Your task to perform on an android device: Open battery settings Image 0: 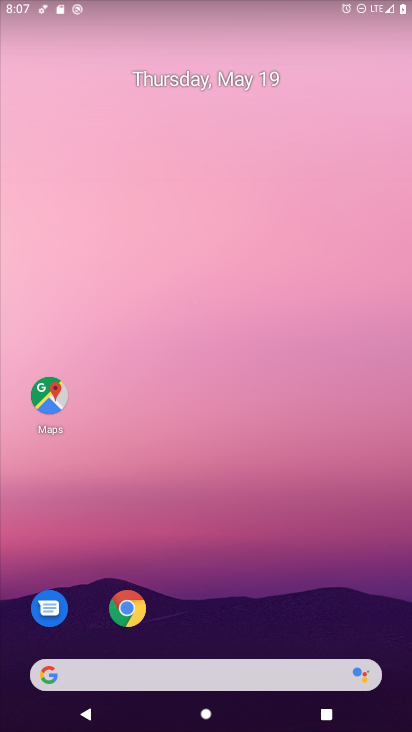
Step 0: drag from (398, 696) to (368, 200)
Your task to perform on an android device: Open battery settings Image 1: 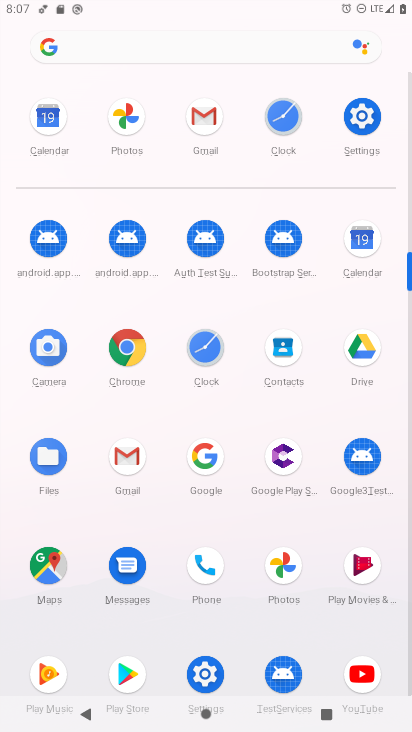
Step 1: click (368, 117)
Your task to perform on an android device: Open battery settings Image 2: 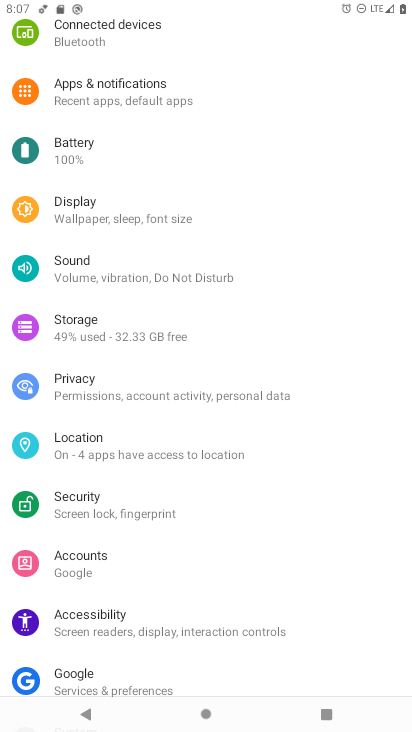
Step 2: click (61, 137)
Your task to perform on an android device: Open battery settings Image 3: 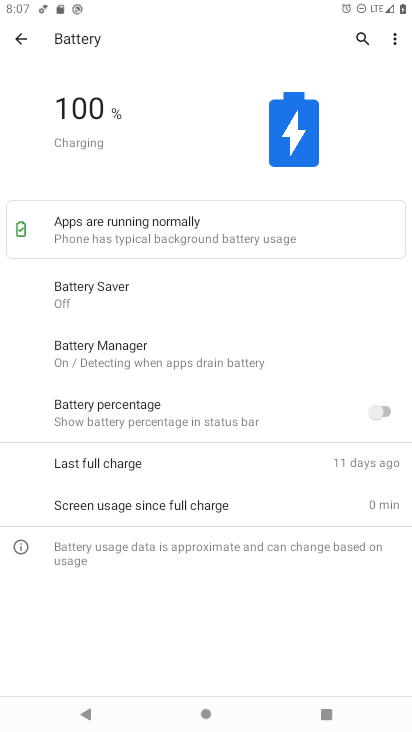
Step 3: task complete